Your task to perform on an android device: What's the price of the Vizio TV? Image 0: 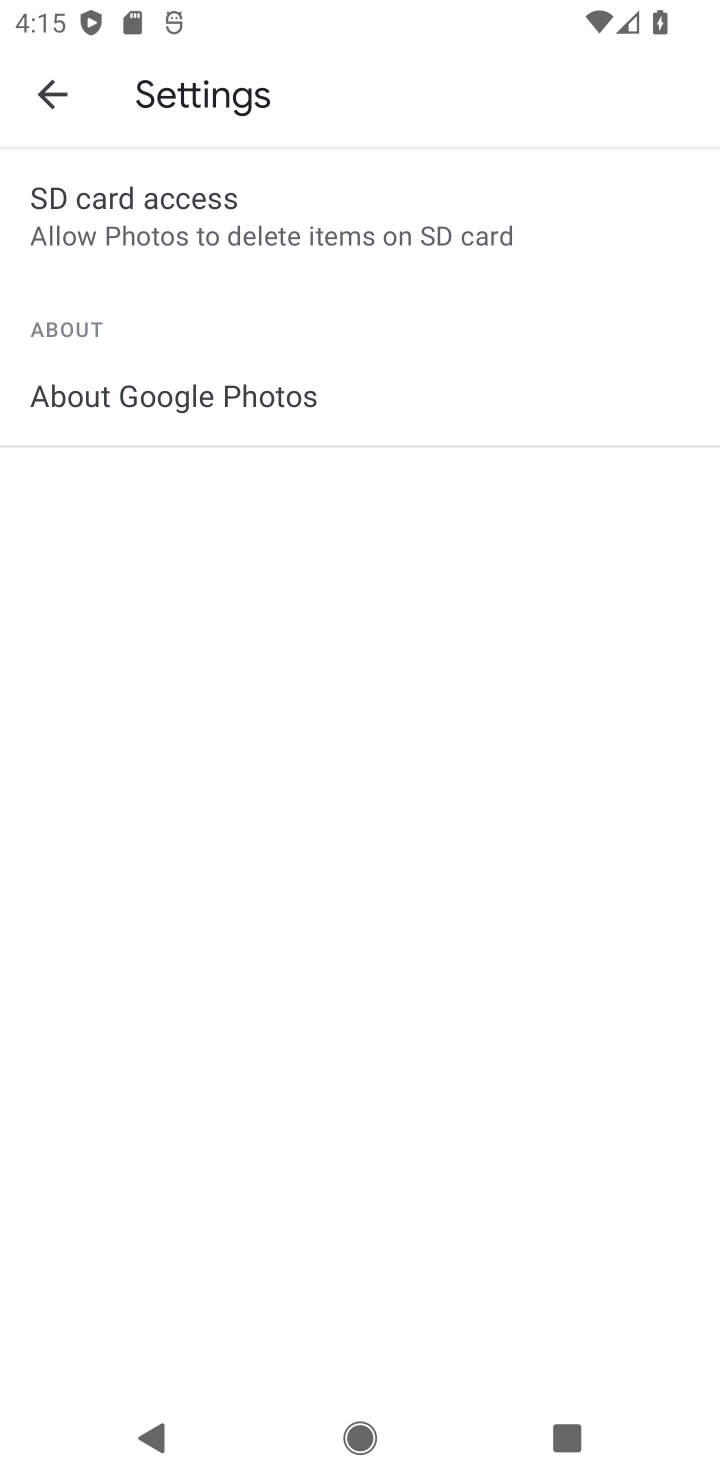
Step 0: press home button
Your task to perform on an android device: What's the price of the Vizio TV? Image 1: 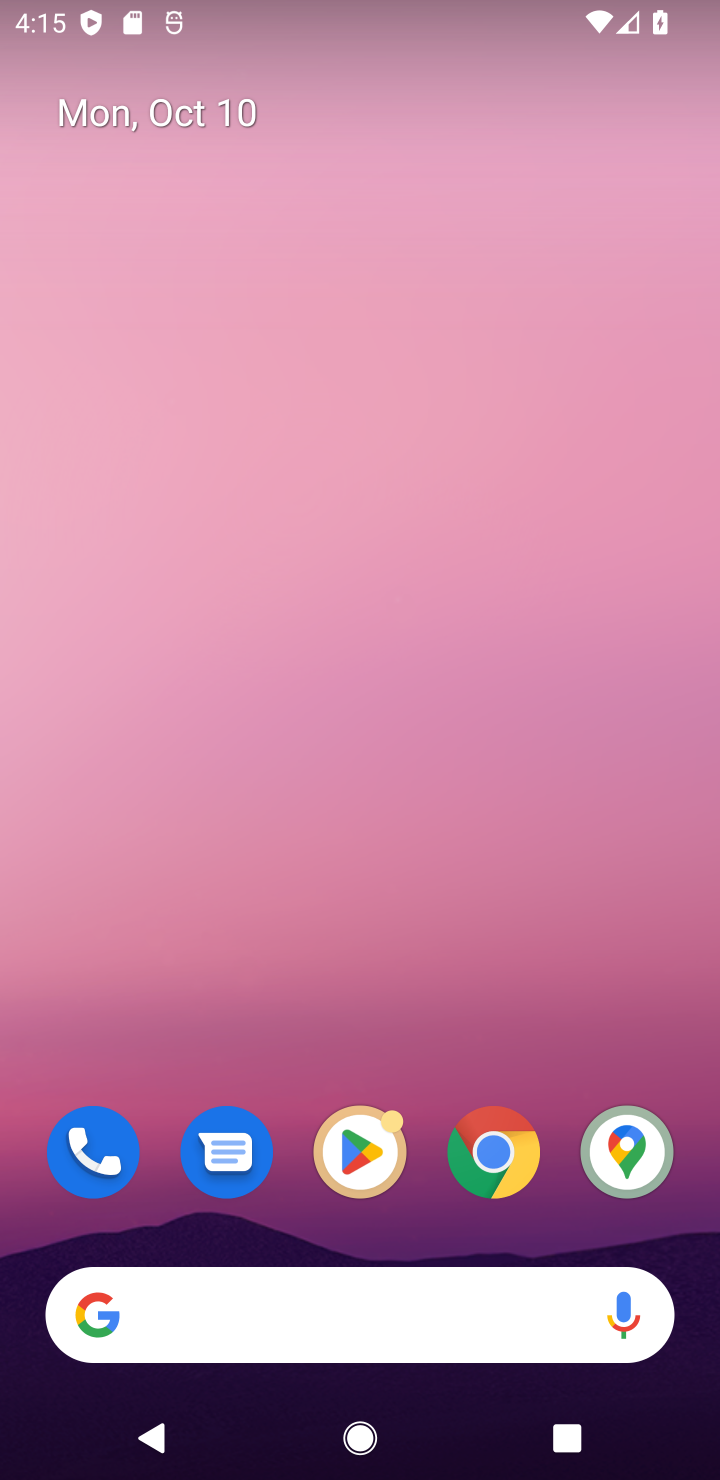
Step 1: click (494, 1164)
Your task to perform on an android device: What's the price of the Vizio TV? Image 2: 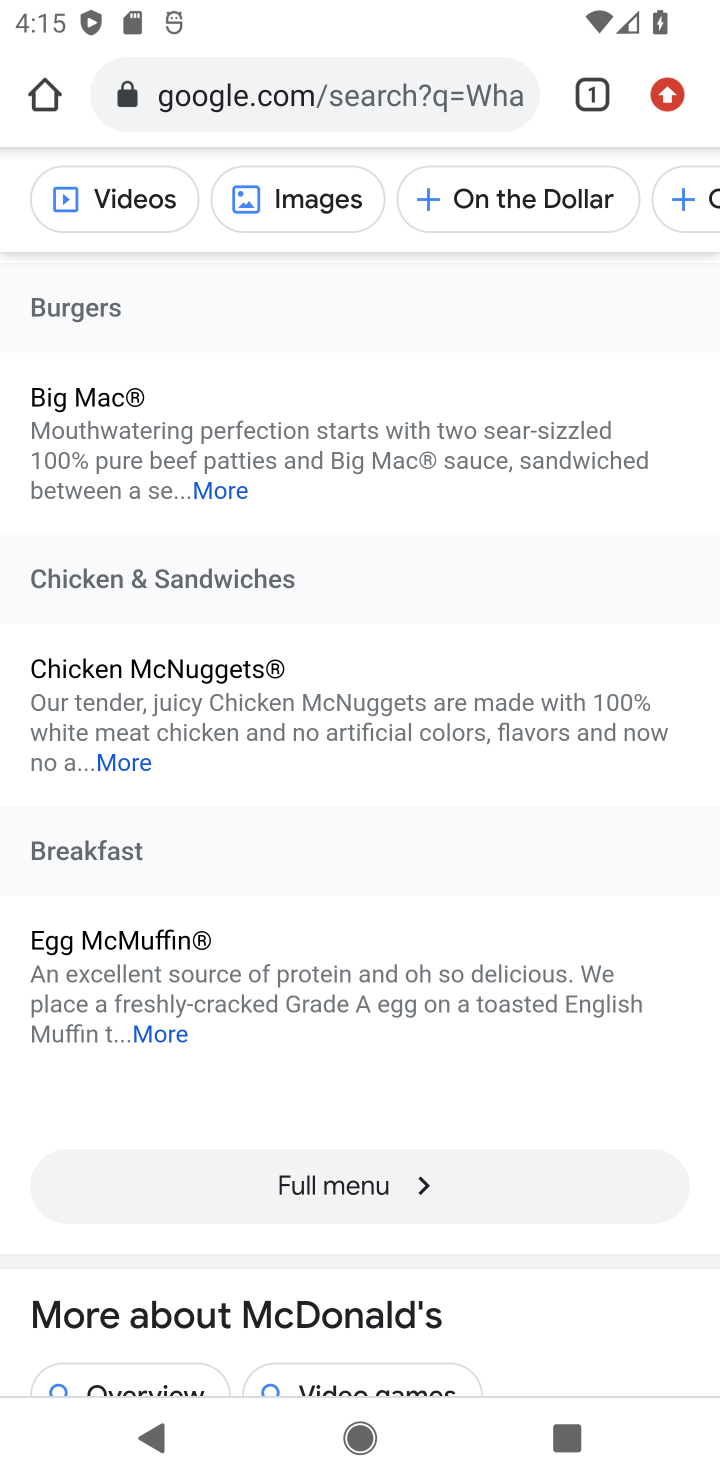
Step 2: click (477, 101)
Your task to perform on an android device: What's the price of the Vizio TV? Image 3: 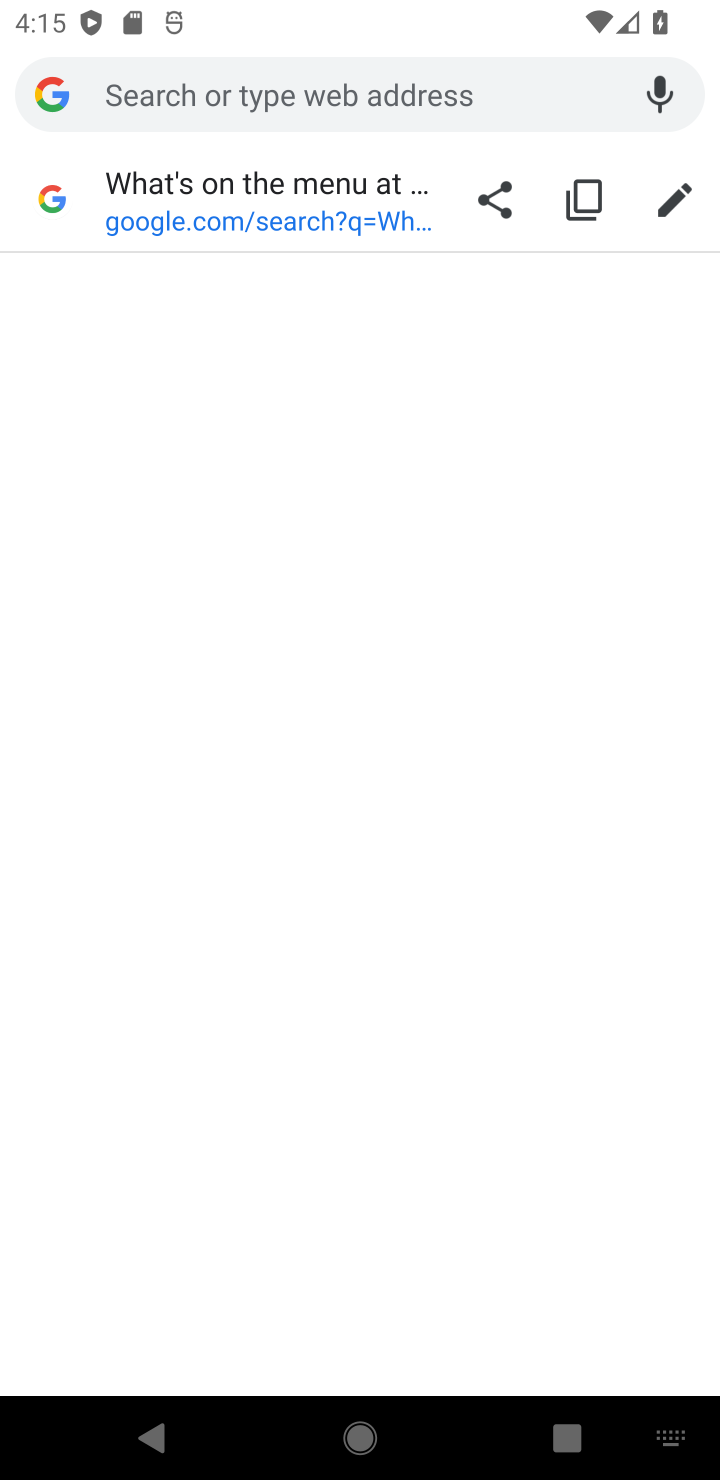
Step 3: type "What's the price of the Vizio TV?"
Your task to perform on an android device: What's the price of the Vizio TV? Image 4: 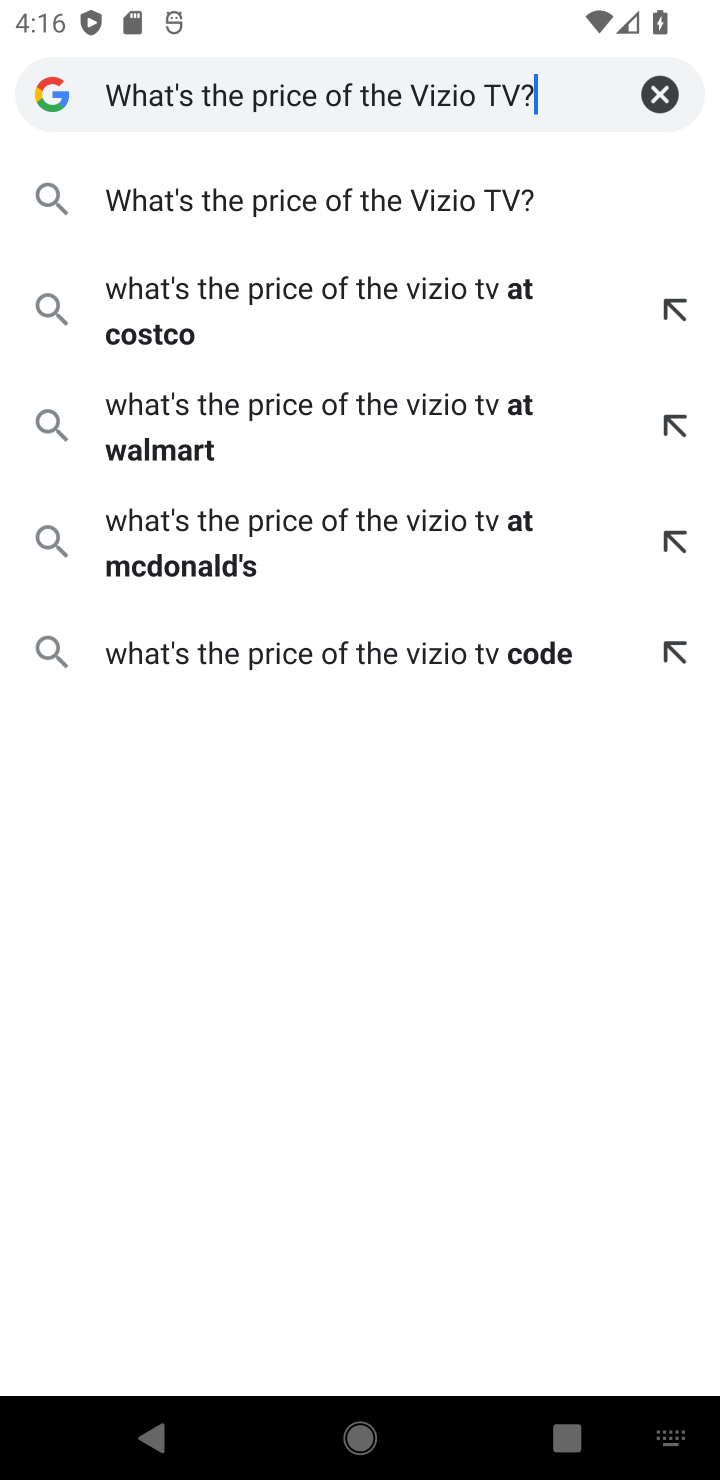
Step 4: click (488, 207)
Your task to perform on an android device: What's the price of the Vizio TV? Image 5: 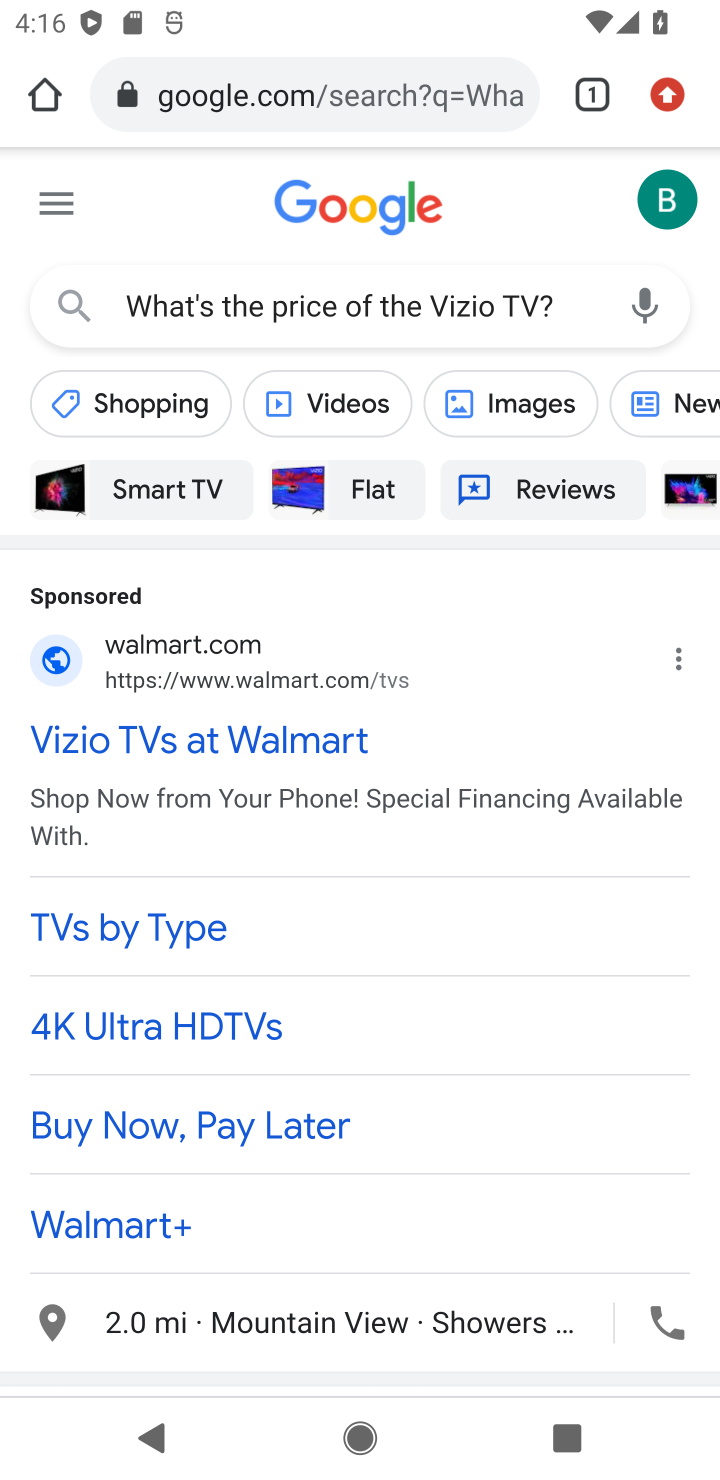
Step 5: drag from (334, 1170) to (435, 749)
Your task to perform on an android device: What's the price of the Vizio TV? Image 6: 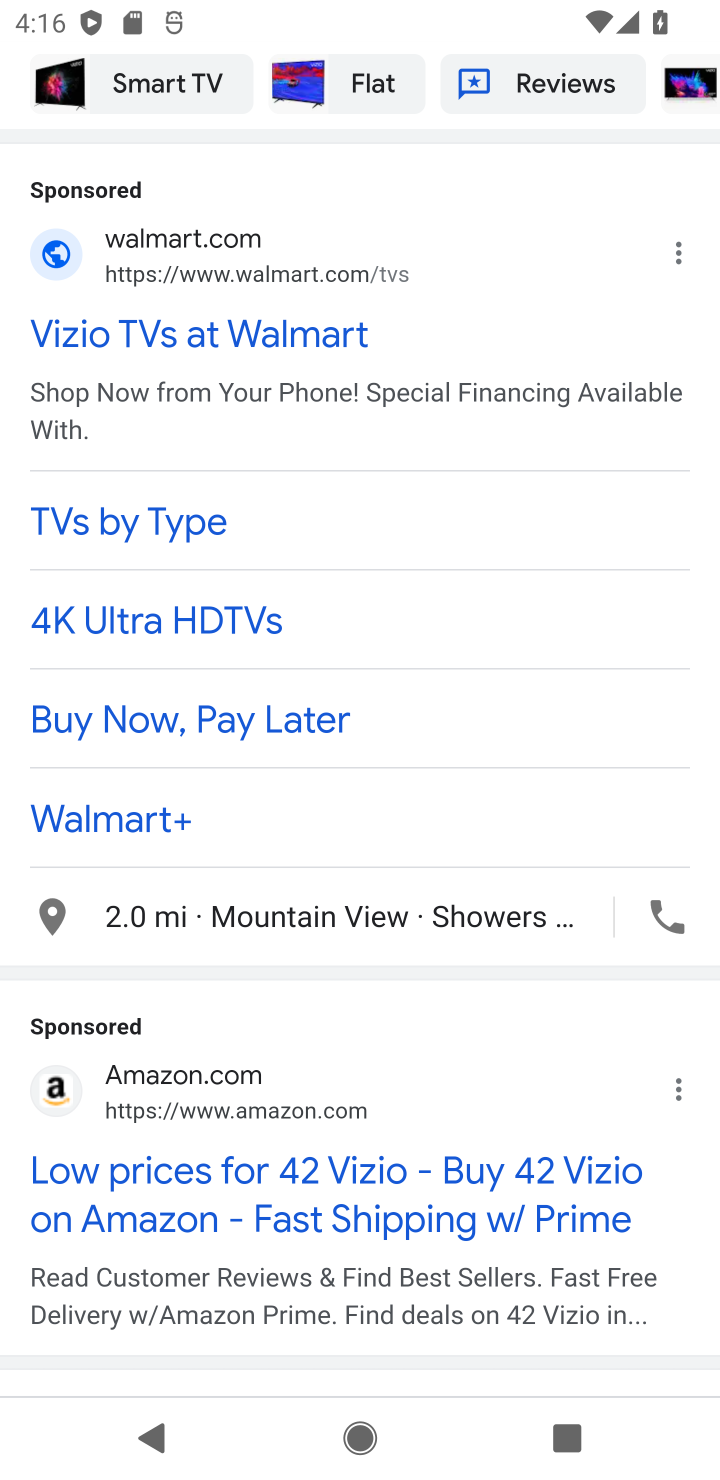
Step 6: drag from (378, 1278) to (500, 995)
Your task to perform on an android device: What's the price of the Vizio TV? Image 7: 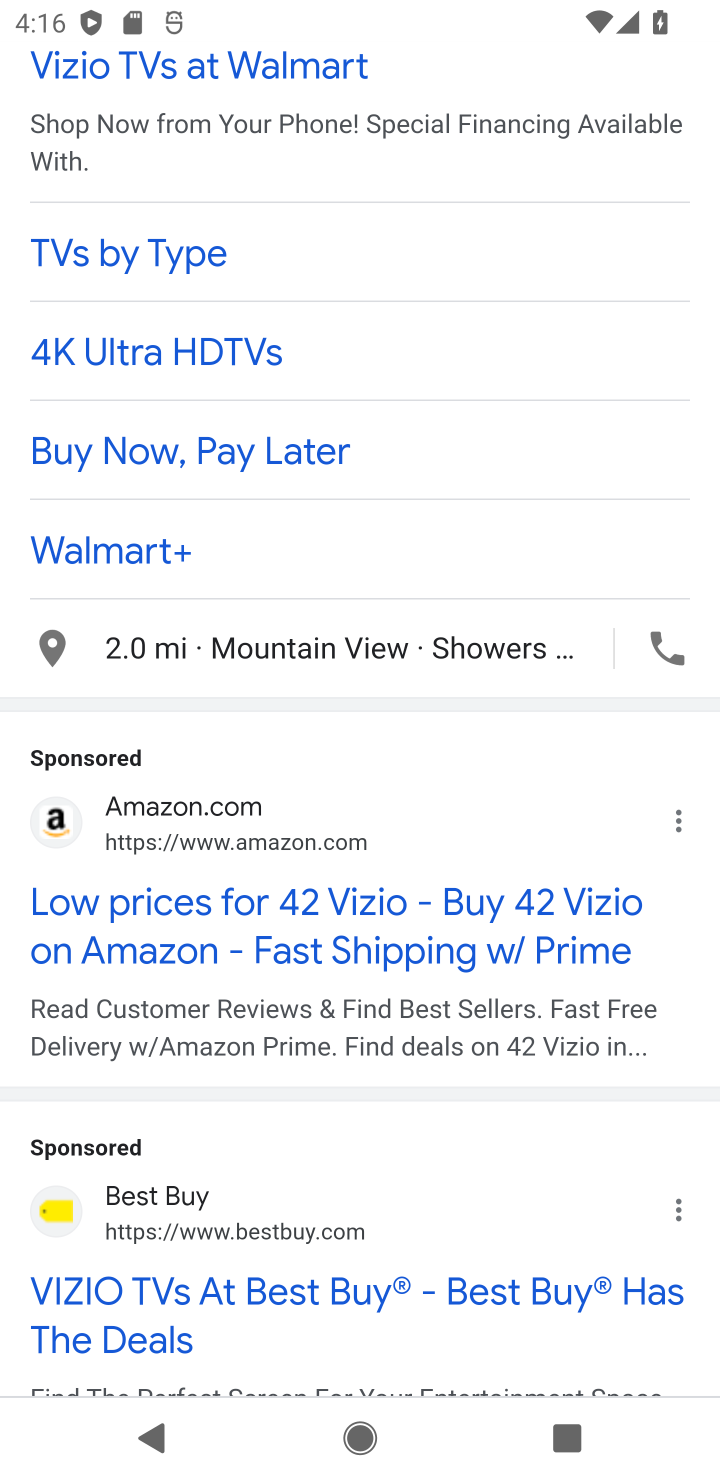
Step 7: drag from (336, 512) to (453, 891)
Your task to perform on an android device: What's the price of the Vizio TV? Image 8: 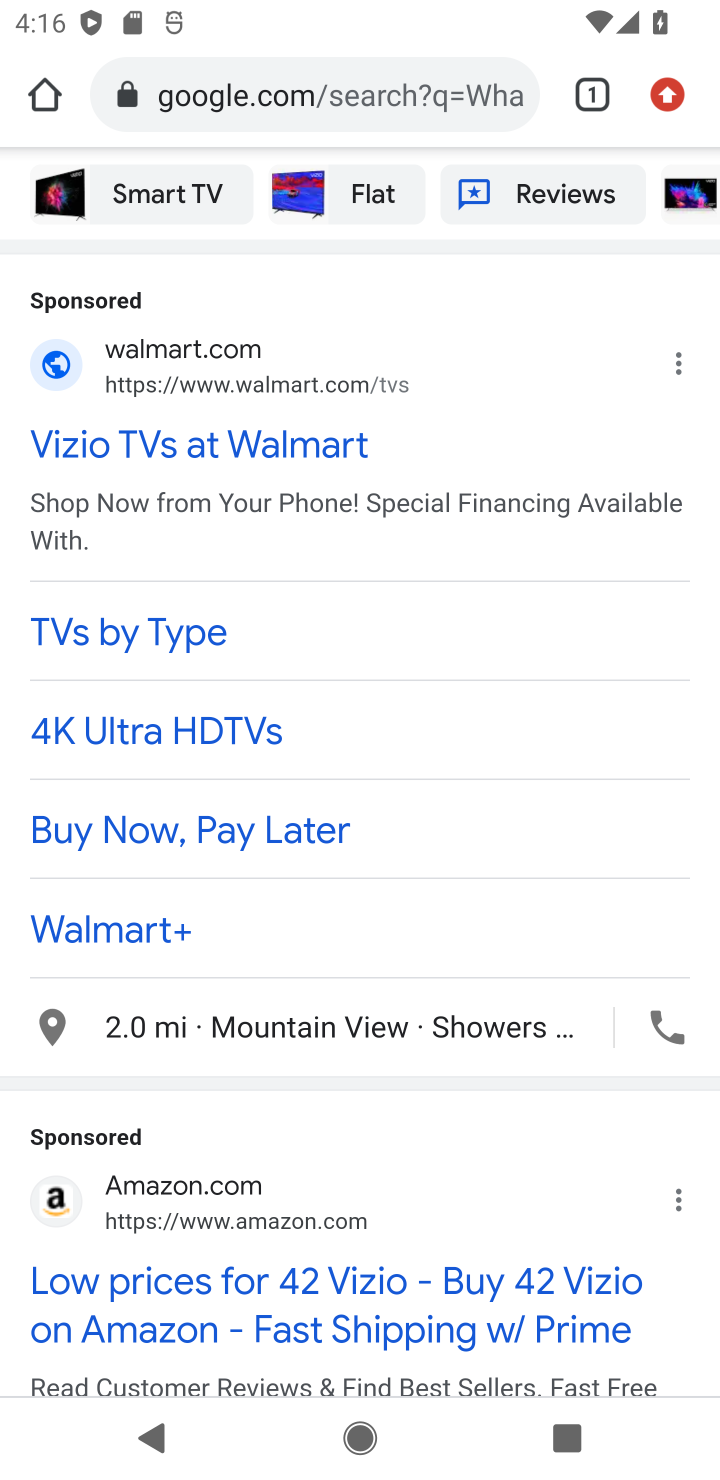
Step 8: click (243, 194)
Your task to perform on an android device: What's the price of the Vizio TV? Image 9: 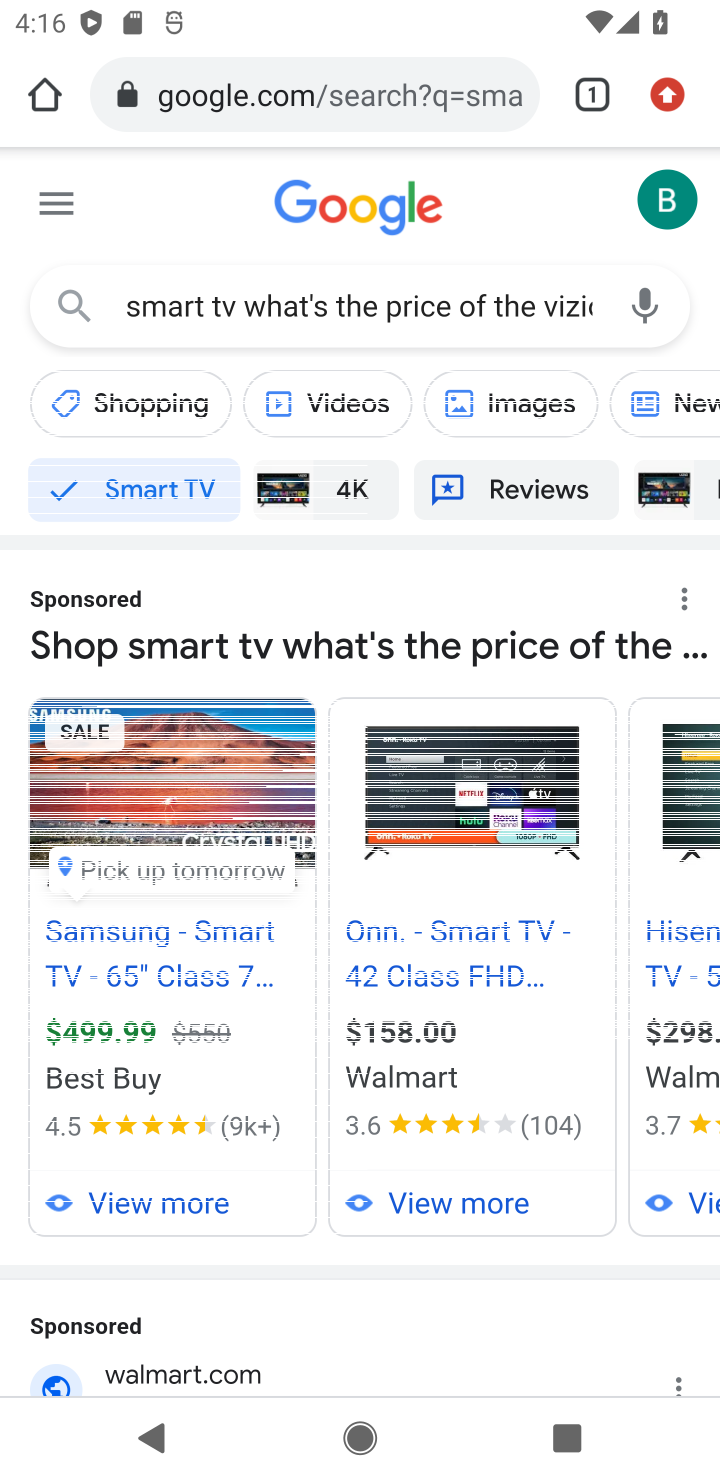
Step 9: task complete